Your task to perform on an android device: turn on javascript in the chrome app Image 0: 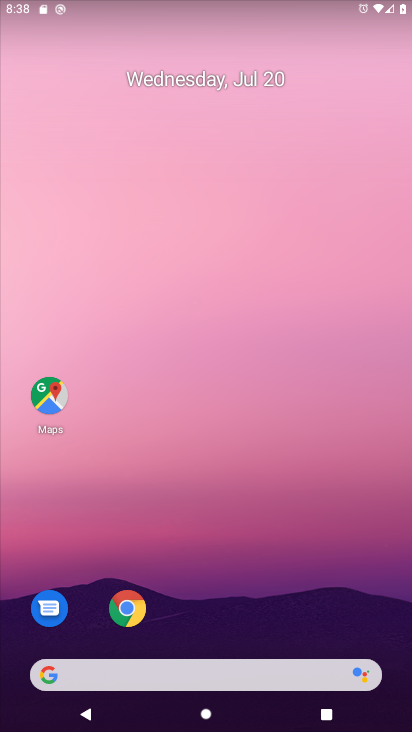
Step 0: drag from (131, 643) to (132, 229)
Your task to perform on an android device: turn on javascript in the chrome app Image 1: 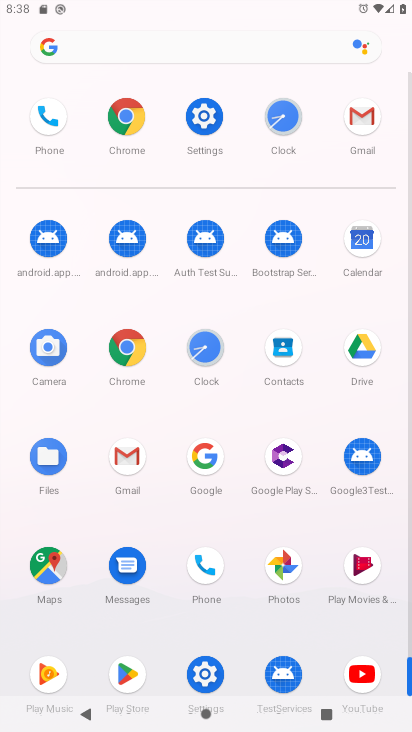
Step 1: click (129, 113)
Your task to perform on an android device: turn on javascript in the chrome app Image 2: 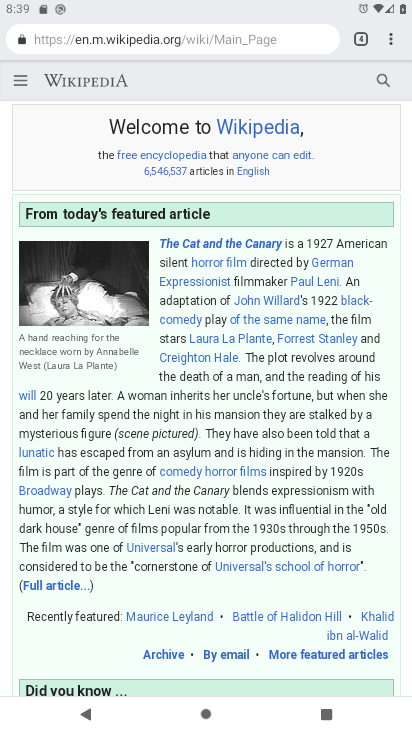
Step 2: click (400, 44)
Your task to perform on an android device: turn on javascript in the chrome app Image 3: 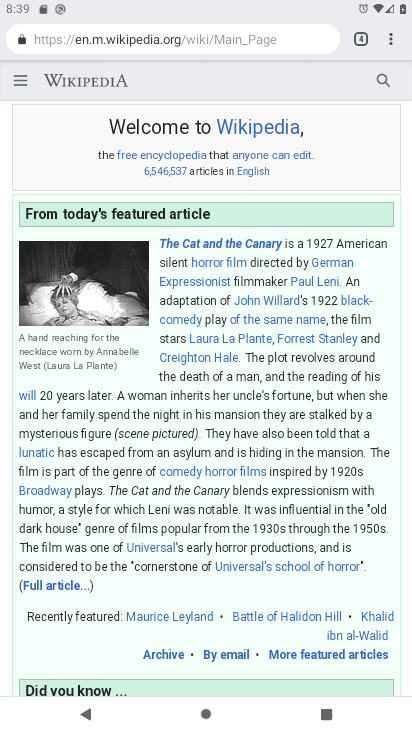
Step 3: click (397, 33)
Your task to perform on an android device: turn on javascript in the chrome app Image 4: 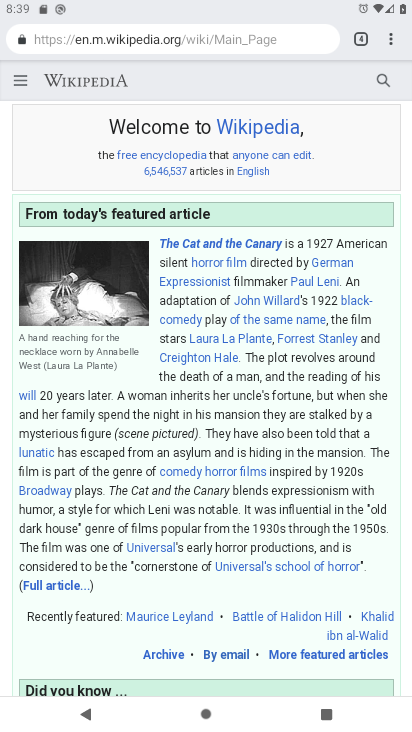
Step 4: click (389, 35)
Your task to perform on an android device: turn on javascript in the chrome app Image 5: 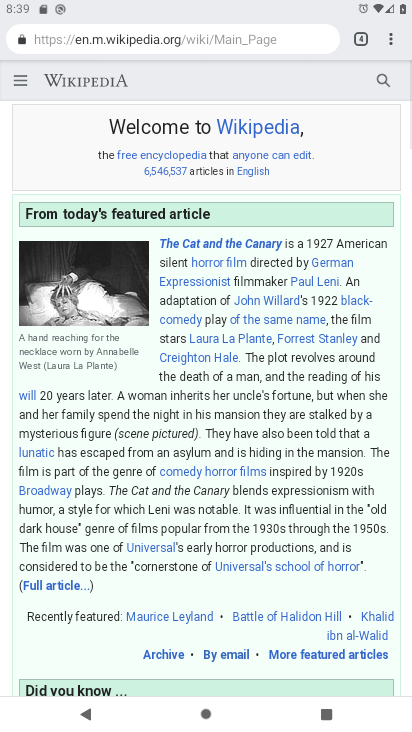
Step 5: click (389, 35)
Your task to perform on an android device: turn on javascript in the chrome app Image 6: 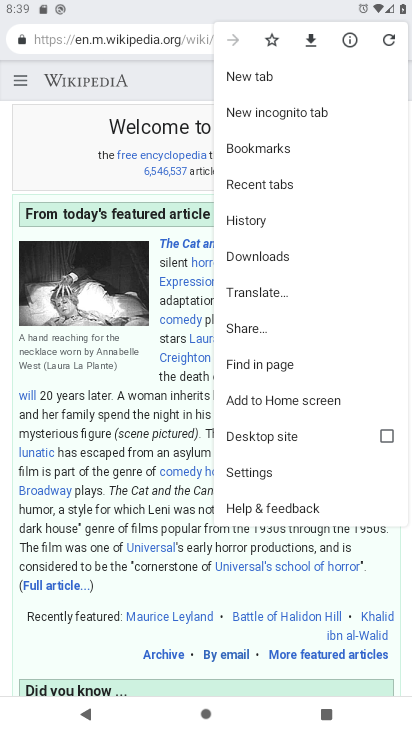
Step 6: click (273, 472)
Your task to perform on an android device: turn on javascript in the chrome app Image 7: 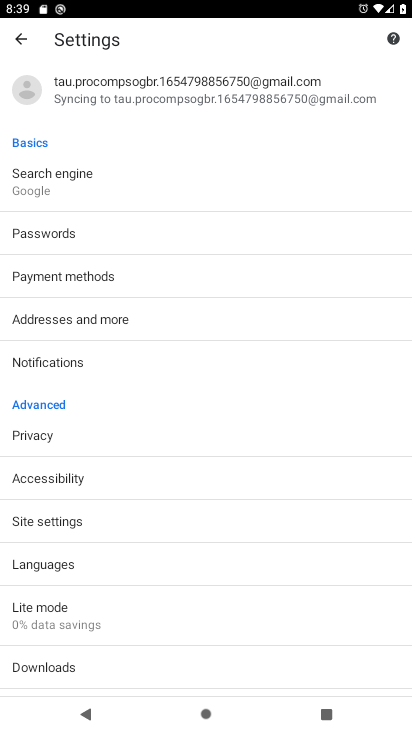
Step 7: click (111, 524)
Your task to perform on an android device: turn on javascript in the chrome app Image 8: 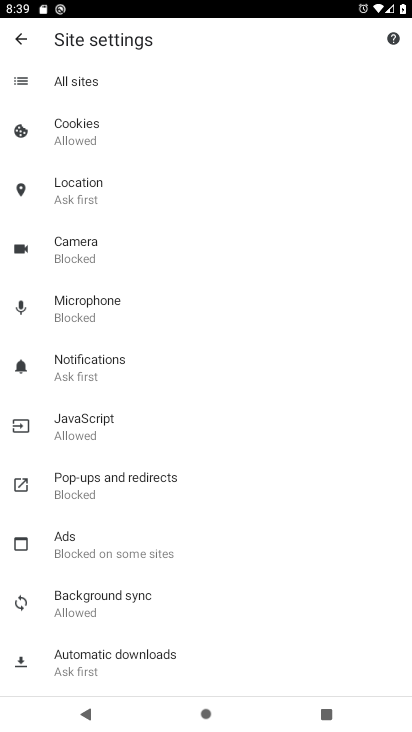
Step 8: click (108, 415)
Your task to perform on an android device: turn on javascript in the chrome app Image 9: 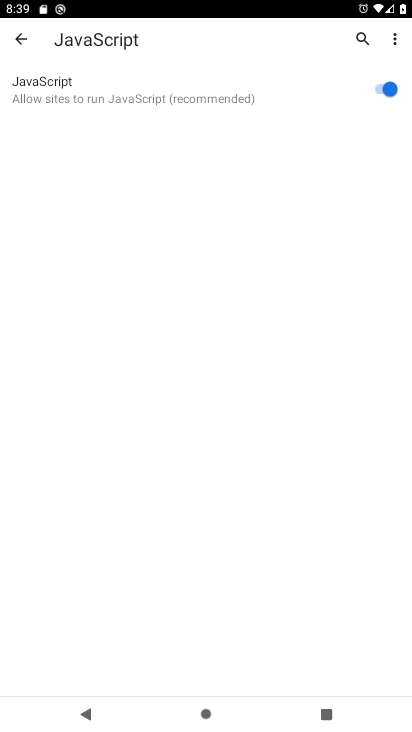
Step 9: task complete